Your task to perform on an android device: Open calendar and show me the fourth week of next month Image 0: 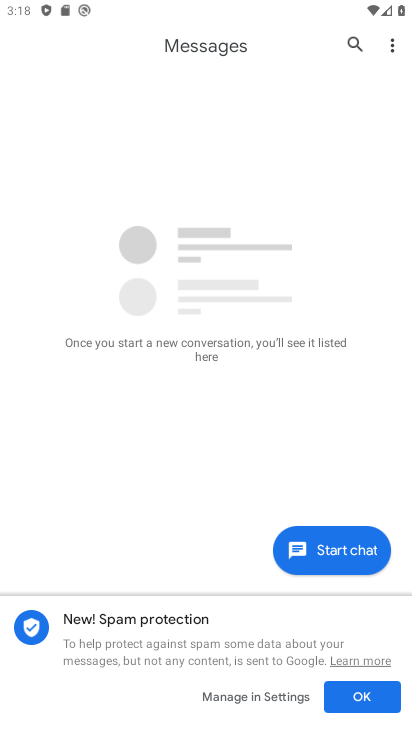
Step 0: press home button
Your task to perform on an android device: Open calendar and show me the fourth week of next month Image 1: 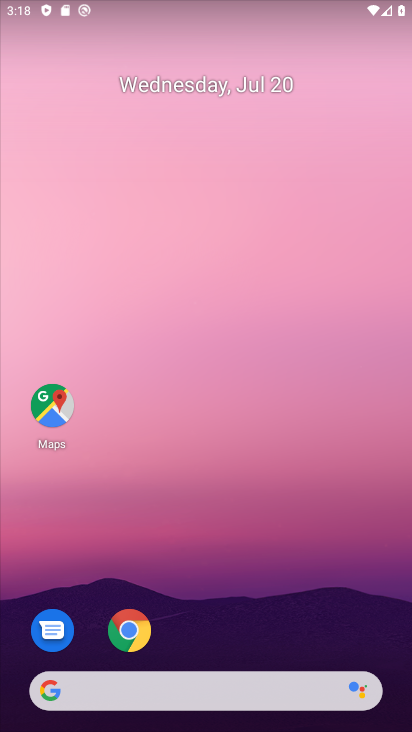
Step 1: drag from (267, 636) to (323, 87)
Your task to perform on an android device: Open calendar and show me the fourth week of next month Image 2: 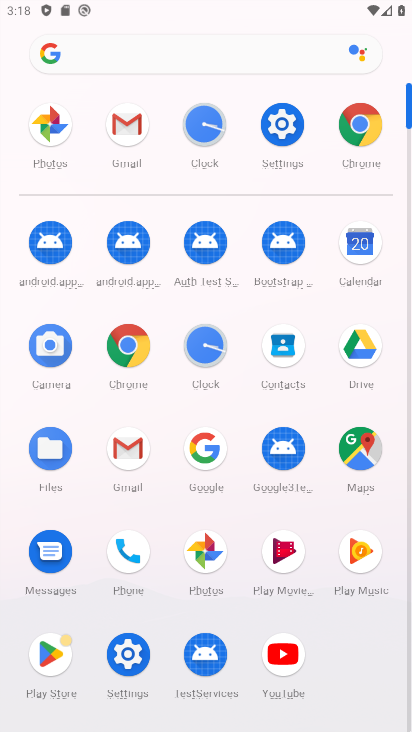
Step 2: click (361, 262)
Your task to perform on an android device: Open calendar and show me the fourth week of next month Image 3: 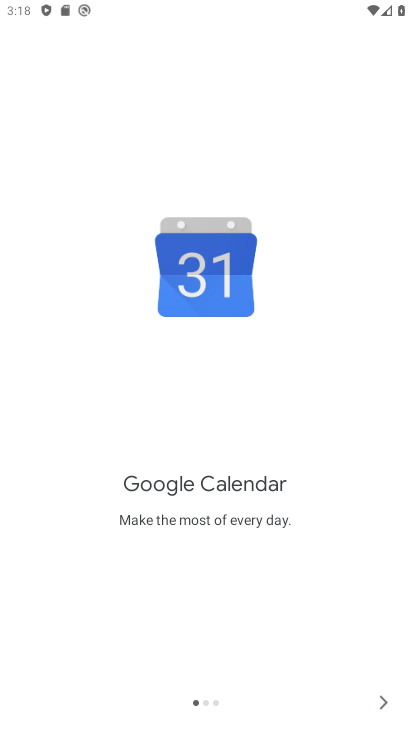
Step 3: click (384, 711)
Your task to perform on an android device: Open calendar and show me the fourth week of next month Image 4: 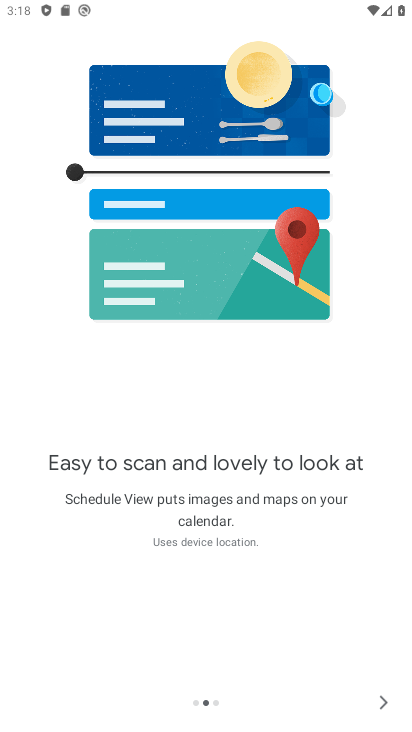
Step 4: click (384, 711)
Your task to perform on an android device: Open calendar and show me the fourth week of next month Image 5: 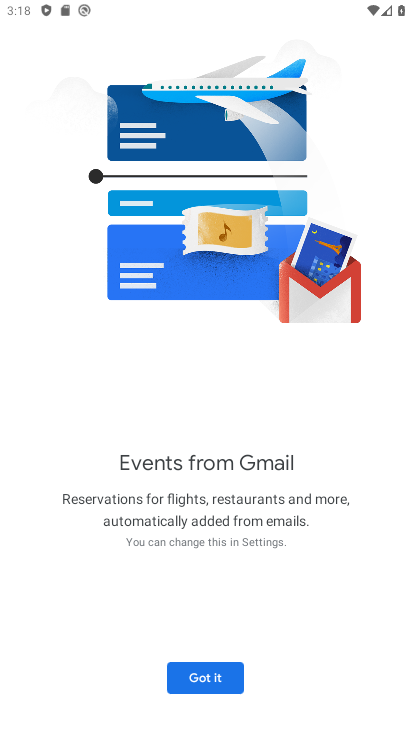
Step 5: click (182, 693)
Your task to perform on an android device: Open calendar and show me the fourth week of next month Image 6: 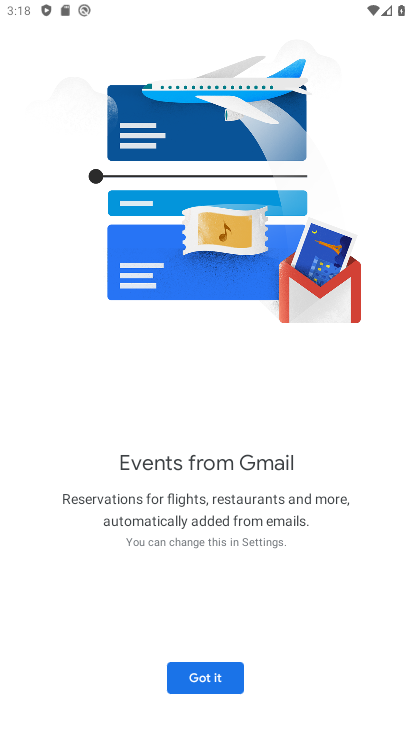
Step 6: click (231, 679)
Your task to perform on an android device: Open calendar and show me the fourth week of next month Image 7: 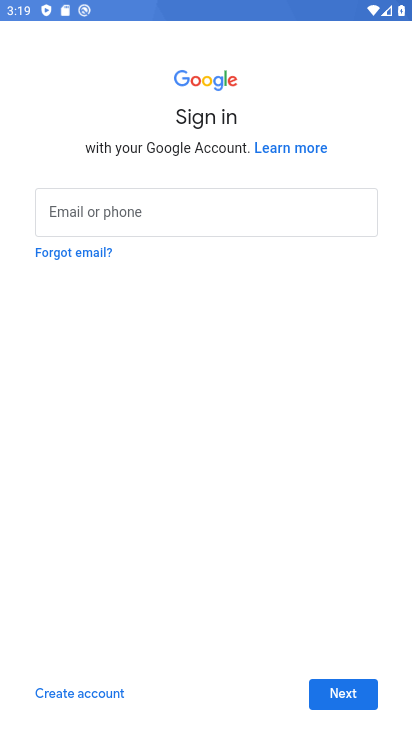
Step 7: click (147, 211)
Your task to perform on an android device: Open calendar and show me the fourth week of next month Image 8: 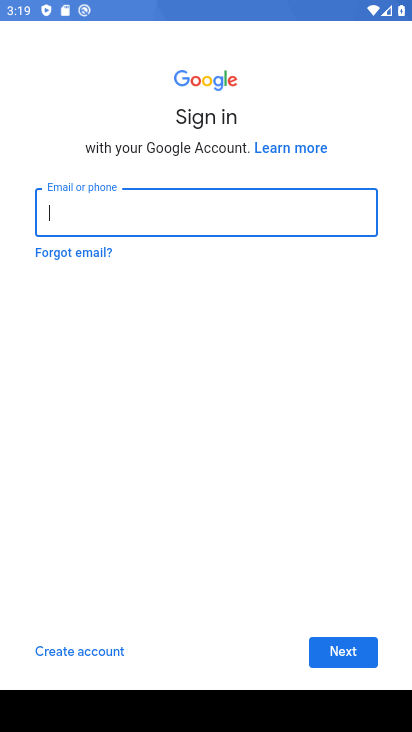
Step 8: task complete